Your task to perform on an android device: Search for sushi restaurants on Maps Image 0: 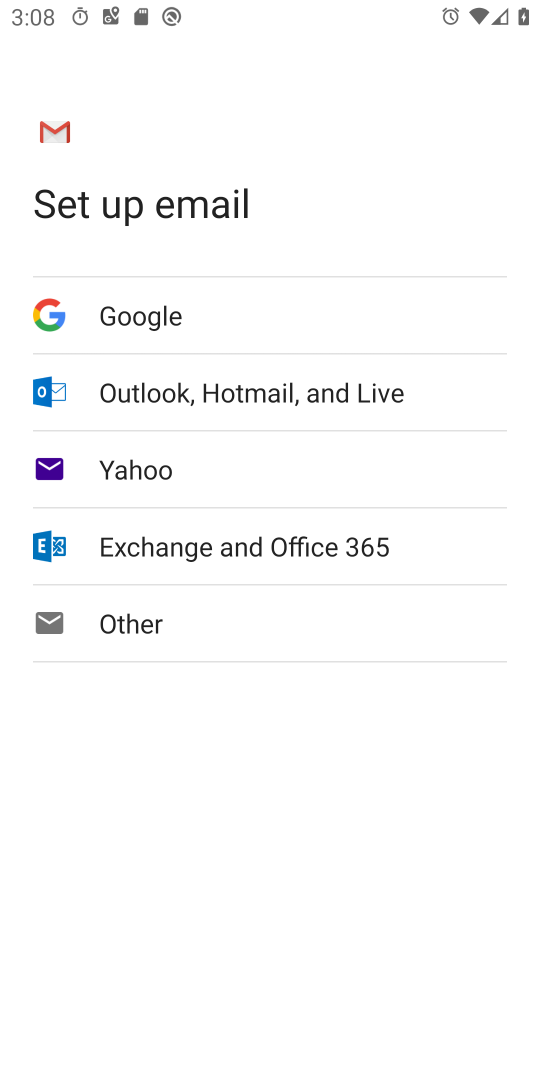
Step 0: press home button
Your task to perform on an android device: Search for sushi restaurants on Maps Image 1: 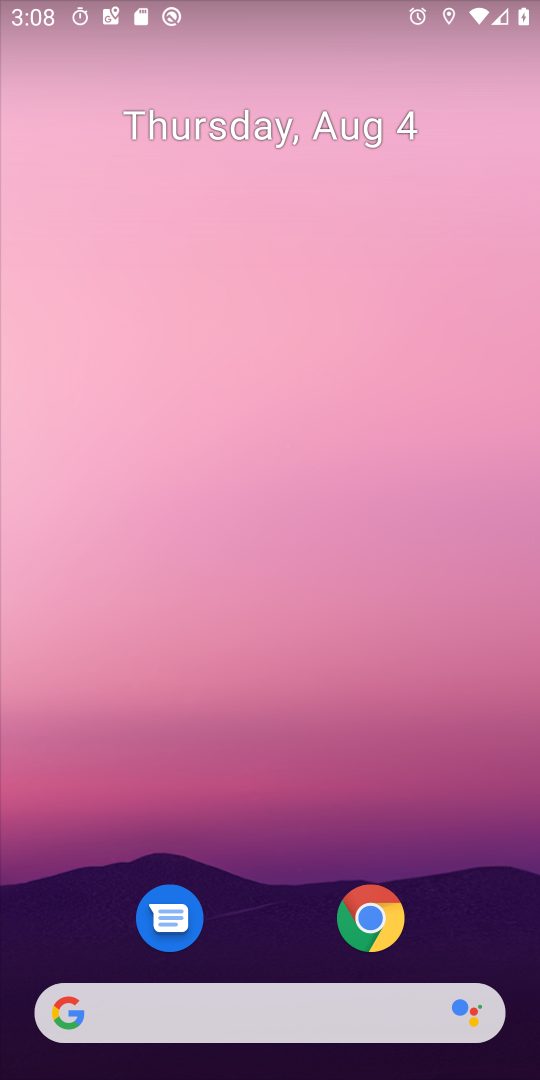
Step 1: drag from (262, 913) to (268, 192)
Your task to perform on an android device: Search for sushi restaurants on Maps Image 2: 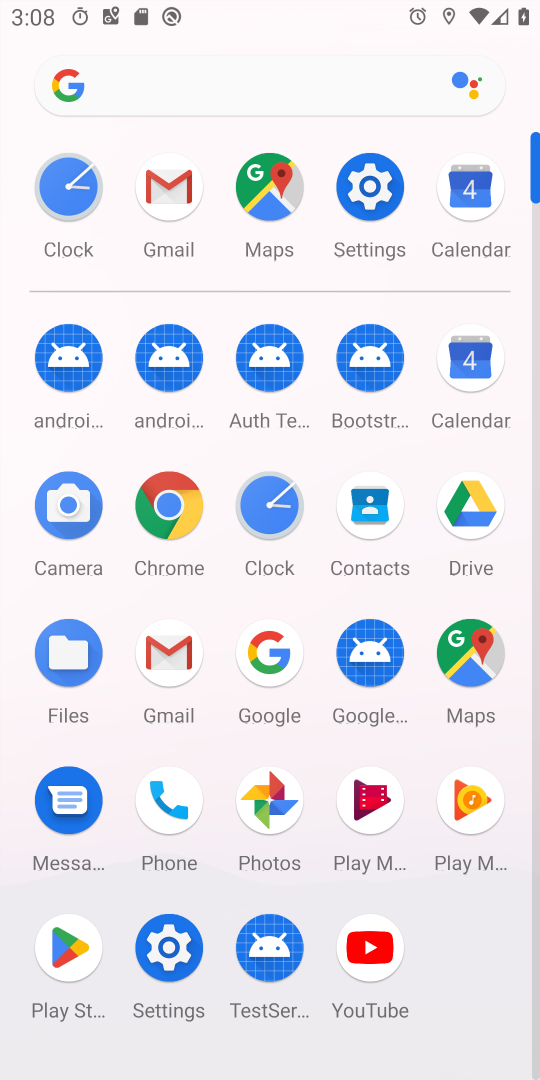
Step 2: click (148, 198)
Your task to perform on an android device: Search for sushi restaurants on Maps Image 3: 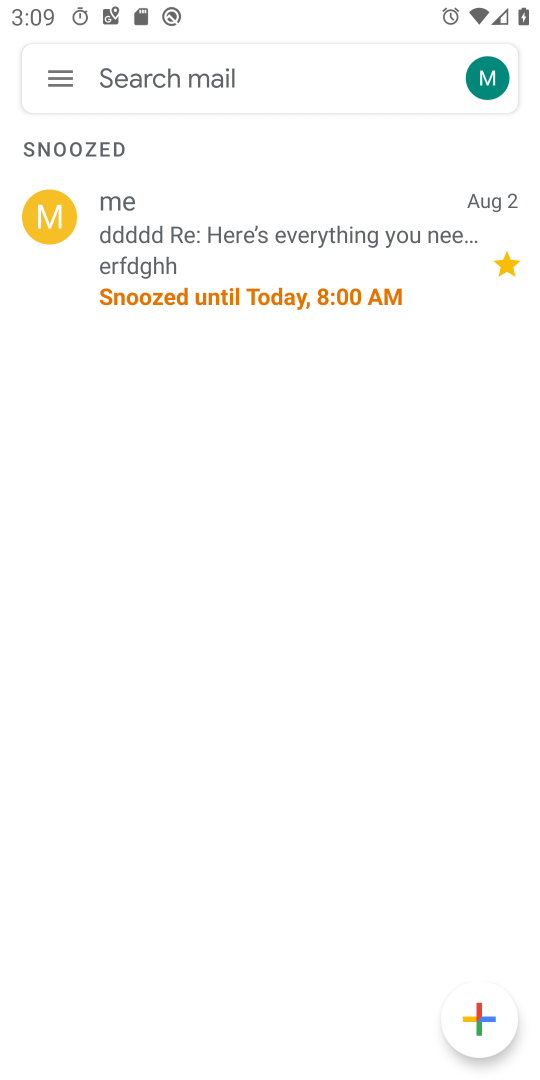
Step 3: task complete